Your task to perform on an android device: toggle show notifications on the lock screen Image 0: 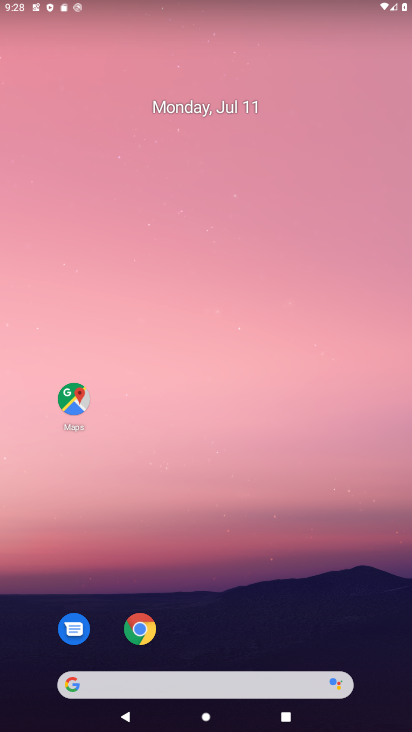
Step 0: drag from (30, 705) to (280, 16)
Your task to perform on an android device: toggle show notifications on the lock screen Image 1: 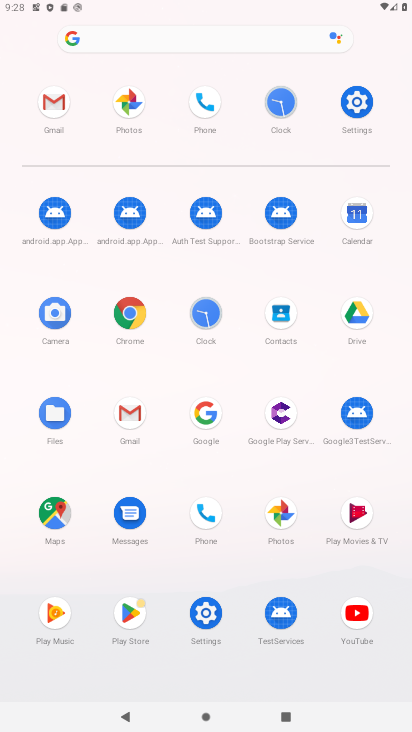
Step 1: click (196, 622)
Your task to perform on an android device: toggle show notifications on the lock screen Image 2: 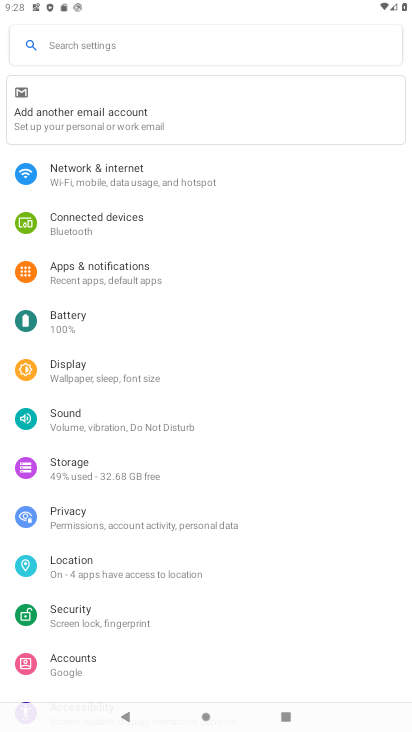
Step 2: click (92, 620)
Your task to perform on an android device: toggle show notifications on the lock screen Image 3: 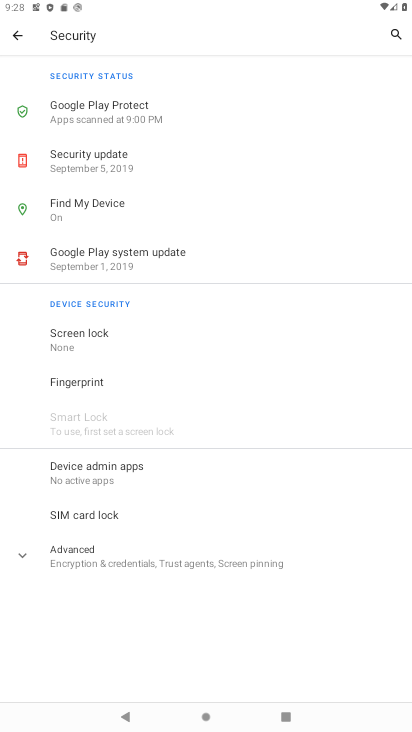
Step 3: click (67, 338)
Your task to perform on an android device: toggle show notifications on the lock screen Image 4: 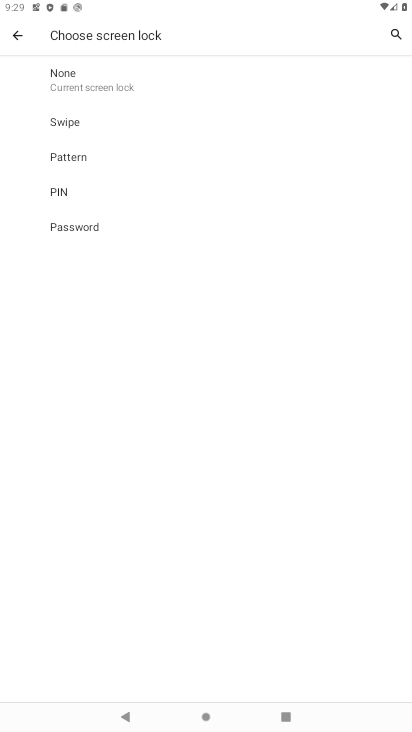
Step 4: task complete